Your task to perform on an android device: Open accessibility settings Image 0: 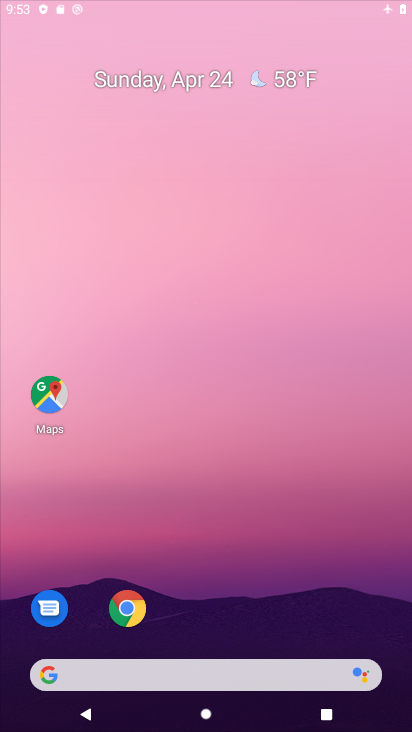
Step 0: drag from (330, 266) to (341, 105)
Your task to perform on an android device: Open accessibility settings Image 1: 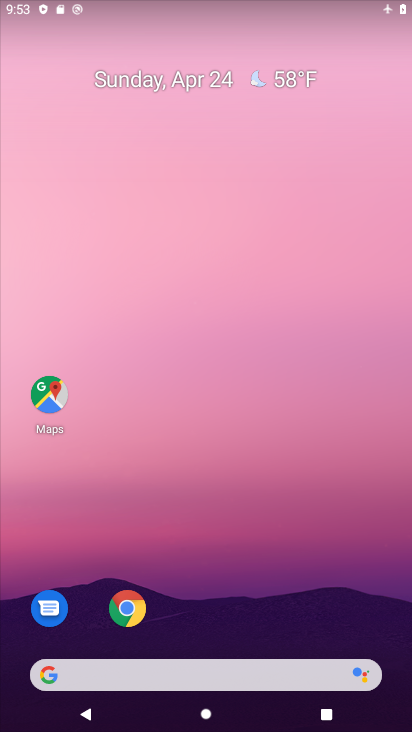
Step 1: drag from (346, 591) to (395, 143)
Your task to perform on an android device: Open accessibility settings Image 2: 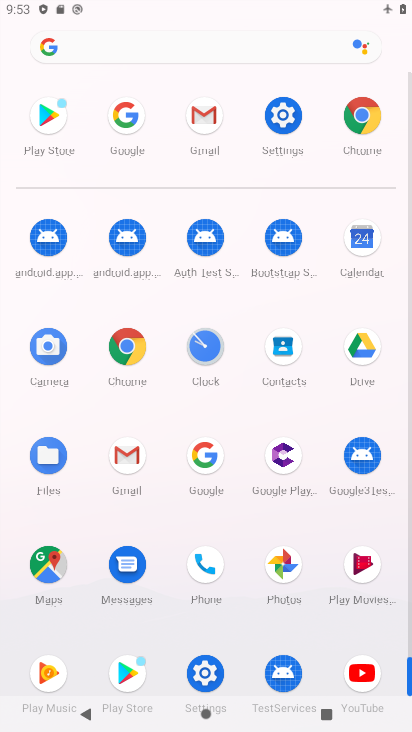
Step 2: click (271, 115)
Your task to perform on an android device: Open accessibility settings Image 3: 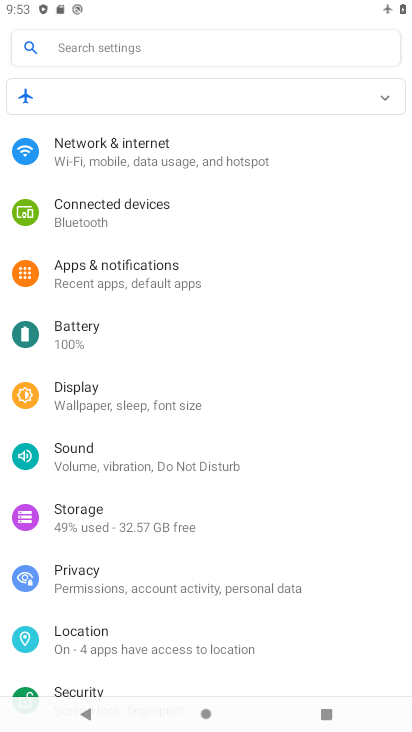
Step 3: click (320, 111)
Your task to perform on an android device: Open accessibility settings Image 4: 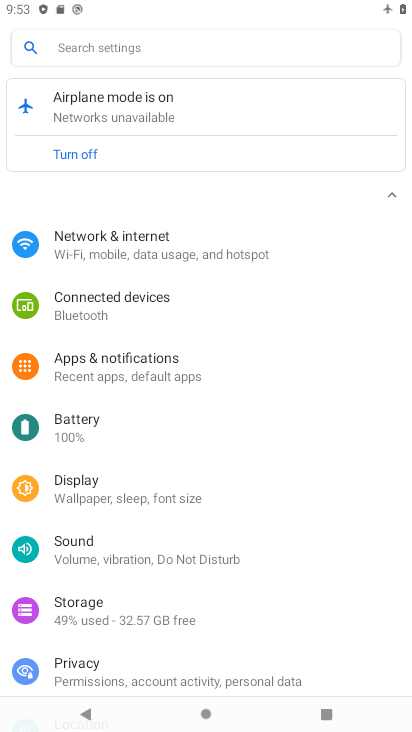
Step 4: drag from (229, 549) to (236, 183)
Your task to perform on an android device: Open accessibility settings Image 5: 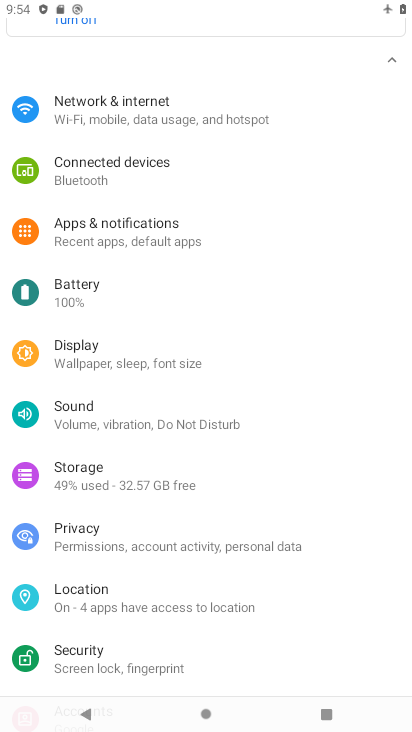
Step 5: drag from (192, 544) to (233, 175)
Your task to perform on an android device: Open accessibility settings Image 6: 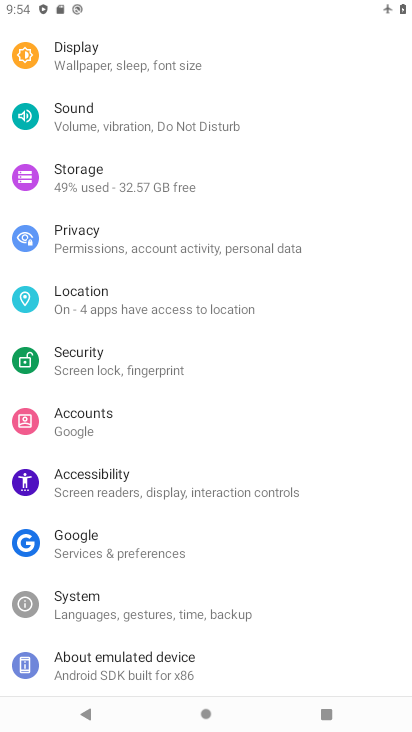
Step 6: click (133, 488)
Your task to perform on an android device: Open accessibility settings Image 7: 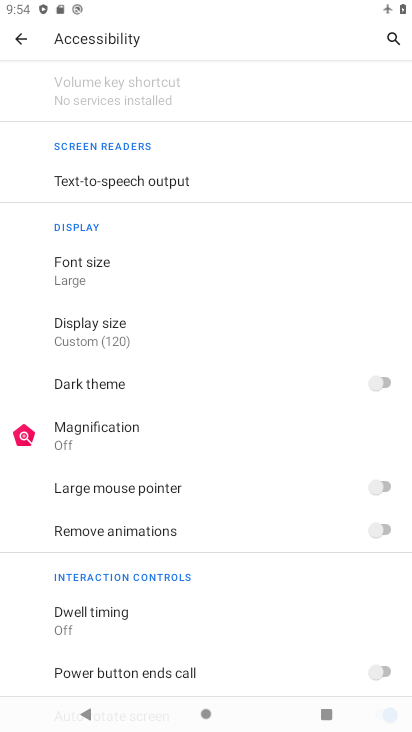
Step 7: task complete